Your task to perform on an android device: change the clock display to show seconds Image 0: 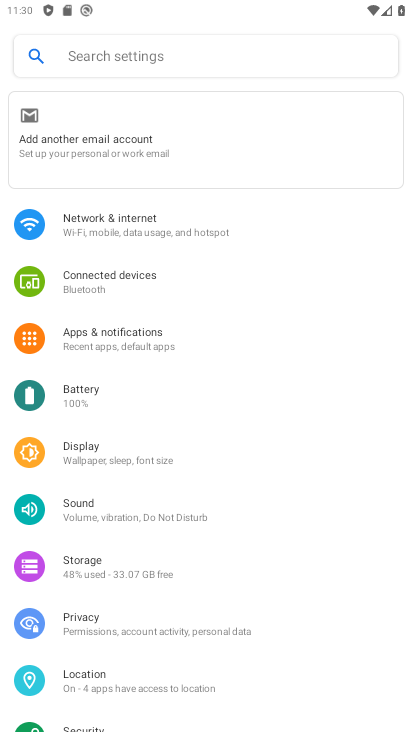
Step 0: press home button
Your task to perform on an android device: change the clock display to show seconds Image 1: 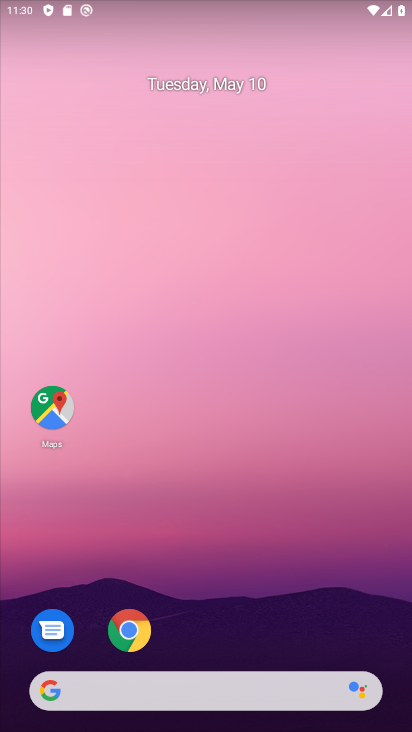
Step 1: drag from (316, 458) to (294, 100)
Your task to perform on an android device: change the clock display to show seconds Image 2: 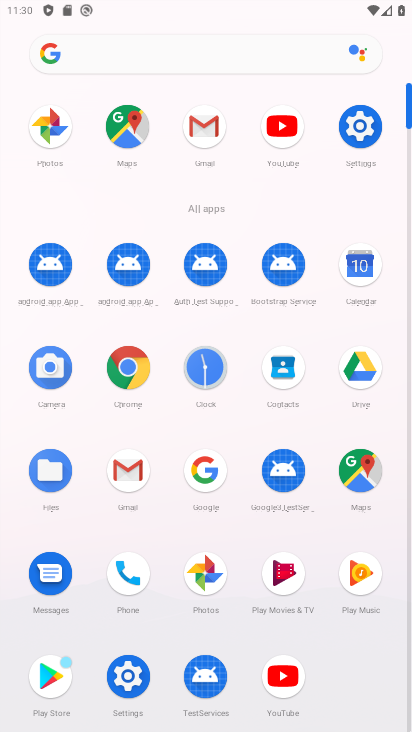
Step 2: click (220, 364)
Your task to perform on an android device: change the clock display to show seconds Image 3: 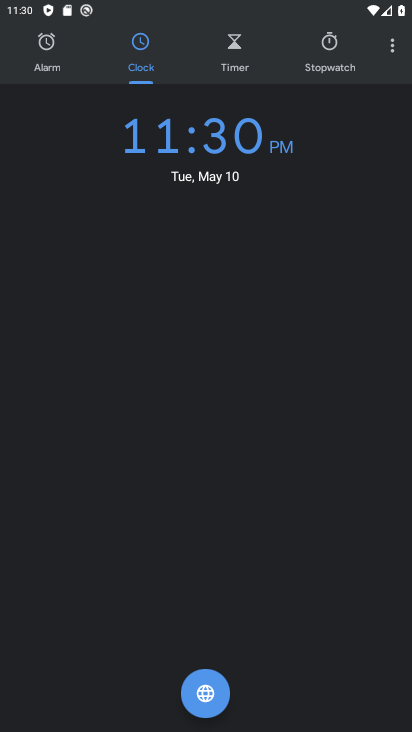
Step 3: click (392, 37)
Your task to perform on an android device: change the clock display to show seconds Image 4: 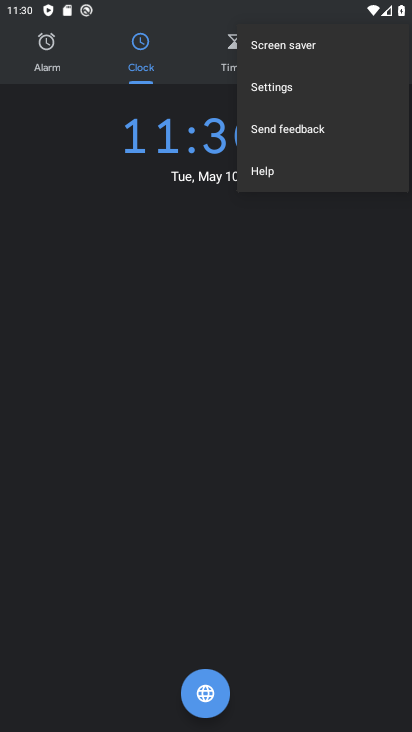
Step 4: click (300, 96)
Your task to perform on an android device: change the clock display to show seconds Image 5: 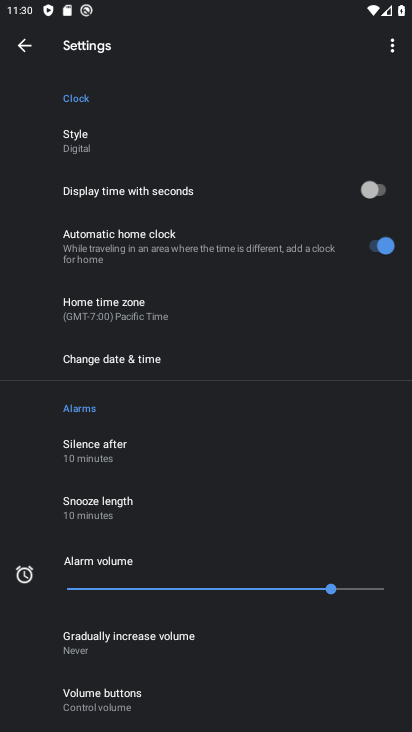
Step 5: click (349, 174)
Your task to perform on an android device: change the clock display to show seconds Image 6: 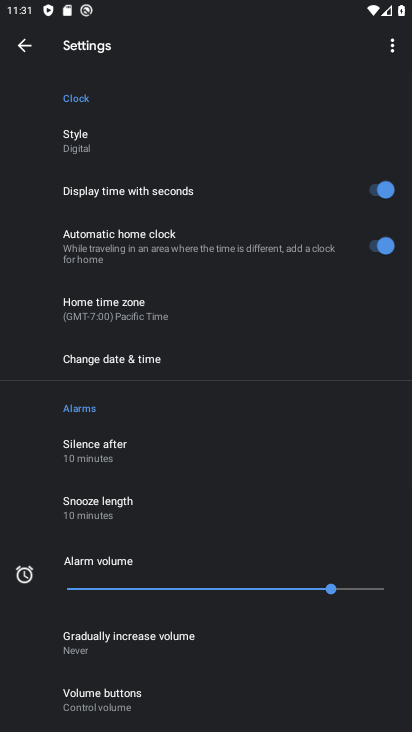
Step 6: task complete